Your task to perform on an android device: Open Chrome and go to settings Image 0: 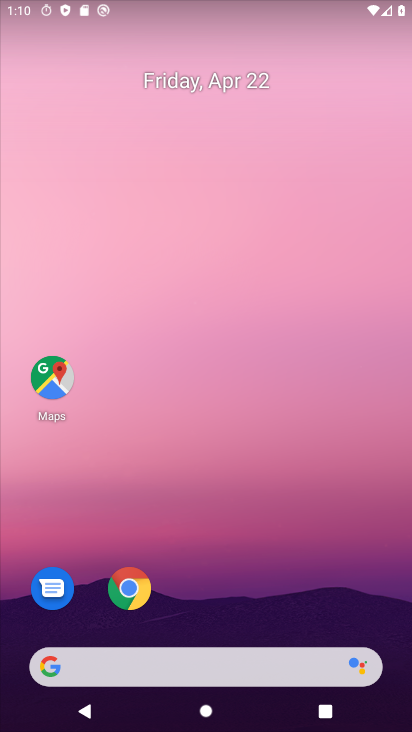
Step 0: drag from (361, 616) to (339, 165)
Your task to perform on an android device: Open Chrome and go to settings Image 1: 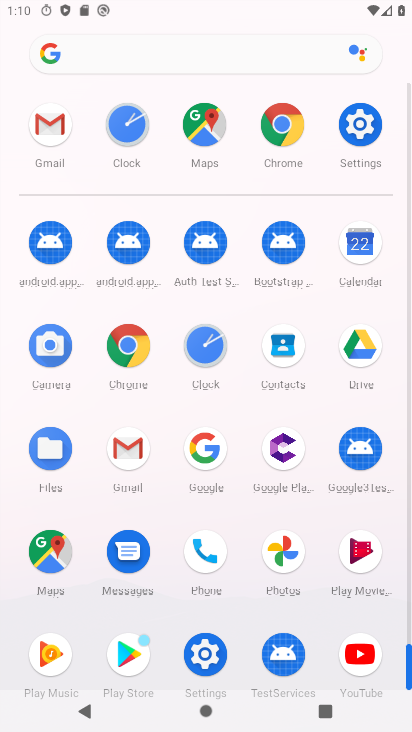
Step 1: click (133, 348)
Your task to perform on an android device: Open Chrome and go to settings Image 2: 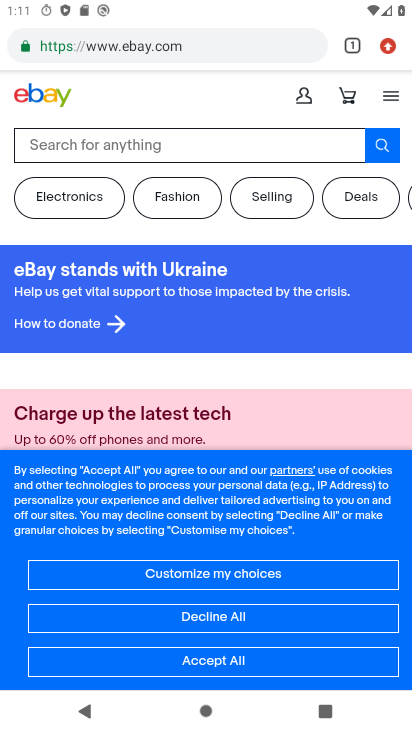
Step 2: task complete